Your task to perform on an android device: empty trash in google photos Image 0: 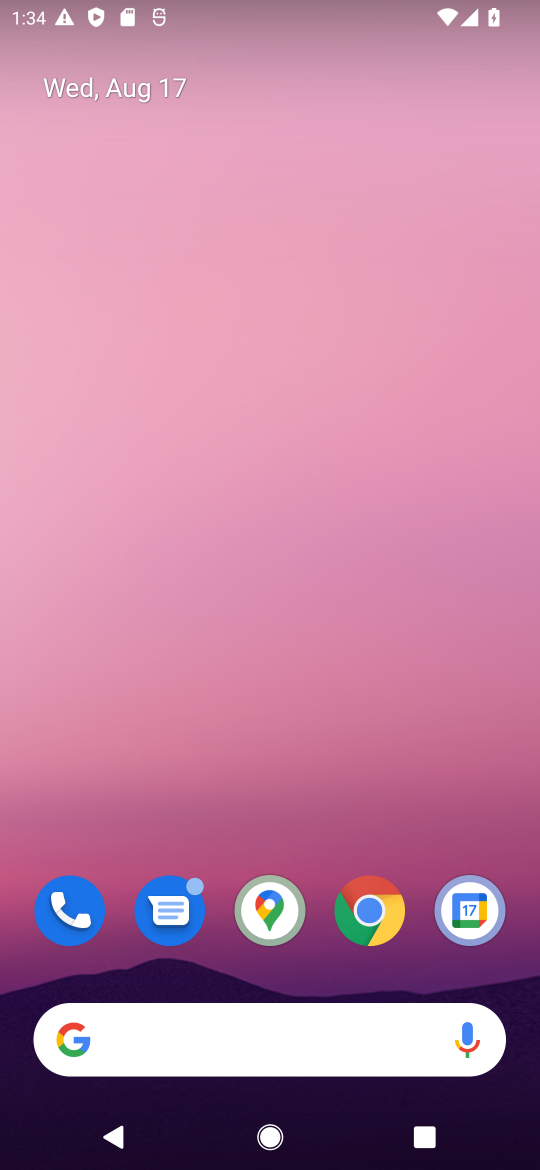
Step 0: drag from (261, 980) to (310, 6)
Your task to perform on an android device: empty trash in google photos Image 1: 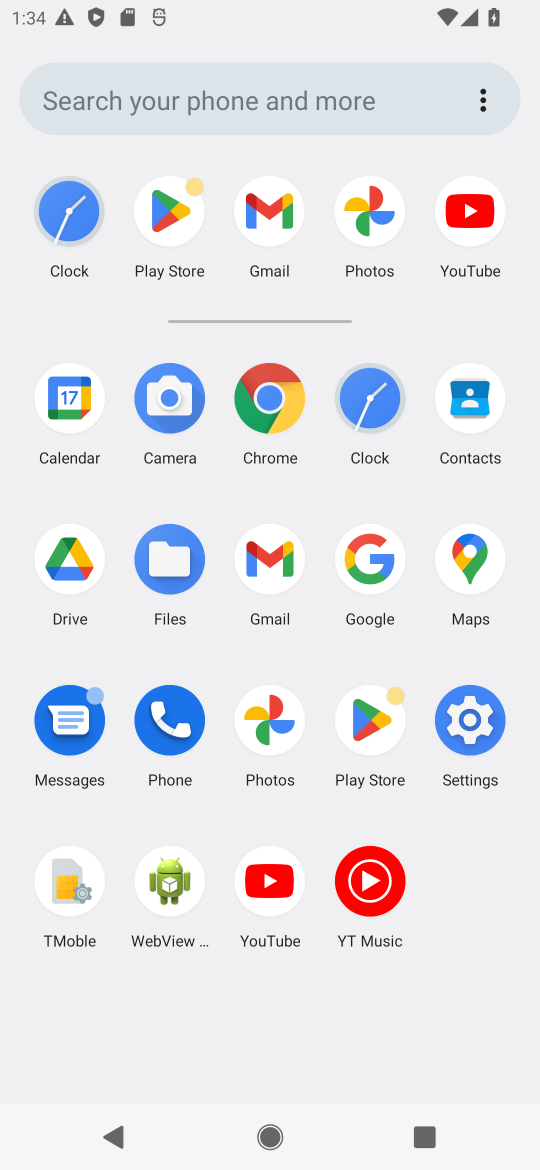
Step 1: click (260, 713)
Your task to perform on an android device: empty trash in google photos Image 2: 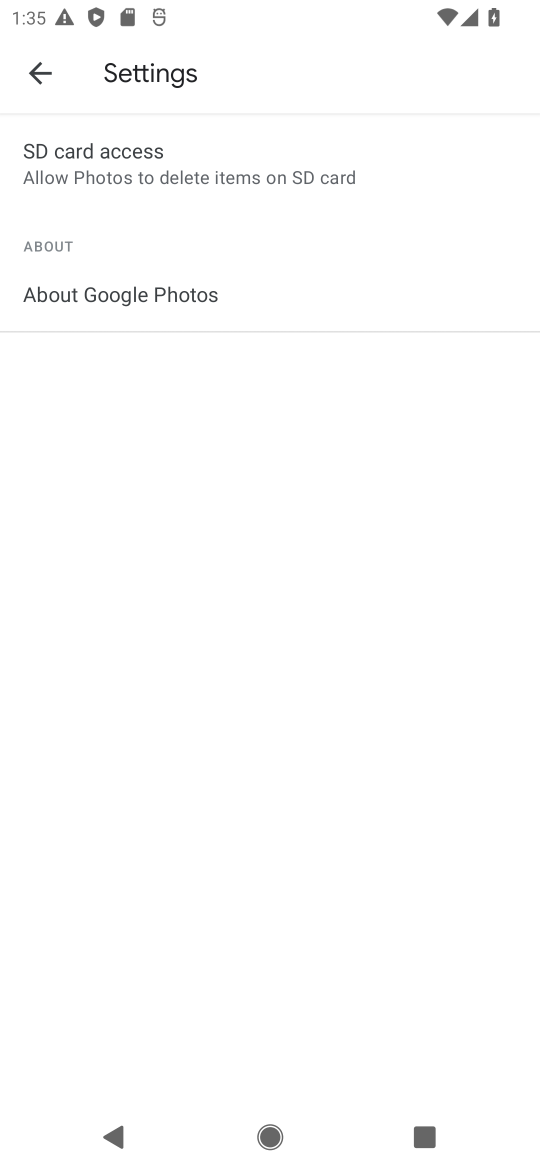
Step 2: press back button
Your task to perform on an android device: empty trash in google photos Image 3: 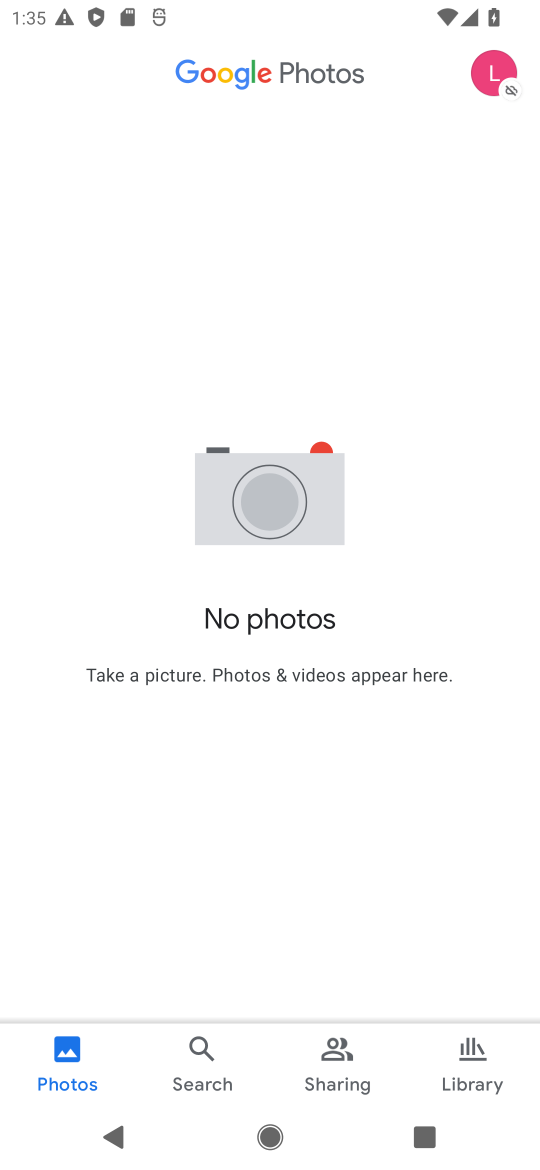
Step 3: click (482, 61)
Your task to perform on an android device: empty trash in google photos Image 4: 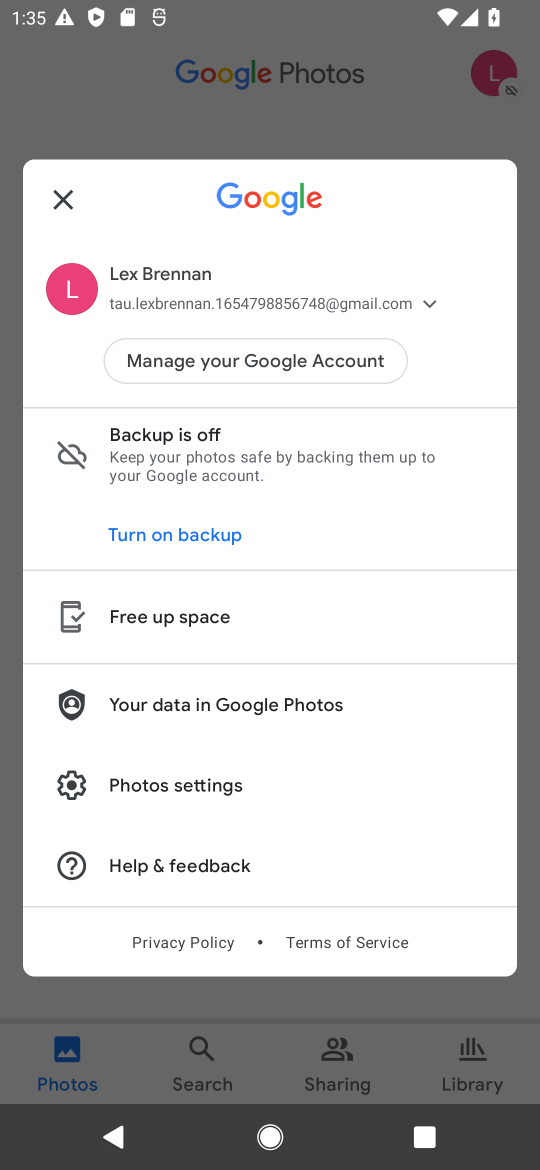
Step 4: task complete